Your task to perform on an android device: Open the Play Movies app and select the watchlist tab. Image 0: 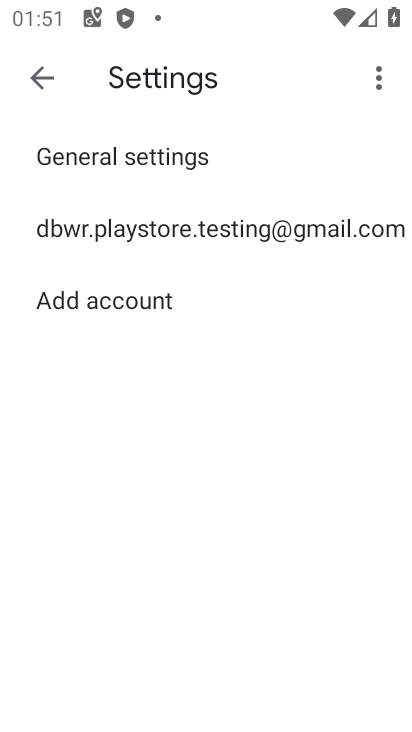
Step 0: press home button
Your task to perform on an android device: Open the Play Movies app and select the watchlist tab. Image 1: 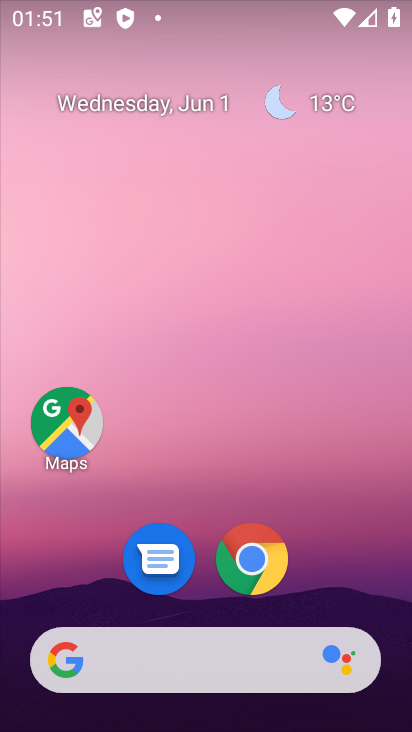
Step 1: drag from (388, 674) to (312, 138)
Your task to perform on an android device: Open the Play Movies app and select the watchlist tab. Image 2: 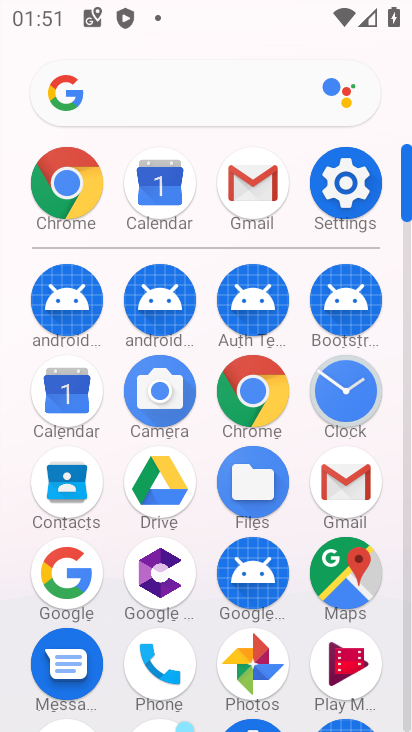
Step 2: click (361, 665)
Your task to perform on an android device: Open the Play Movies app and select the watchlist tab. Image 3: 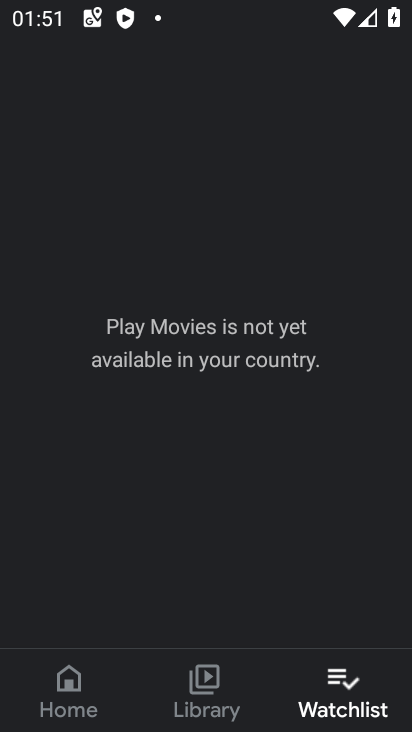
Step 3: click (338, 691)
Your task to perform on an android device: Open the Play Movies app and select the watchlist tab. Image 4: 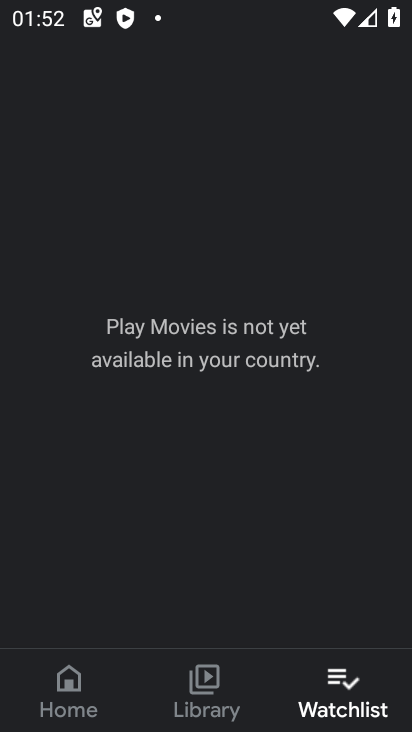
Step 4: task complete